Your task to perform on an android device: add a contact Image 0: 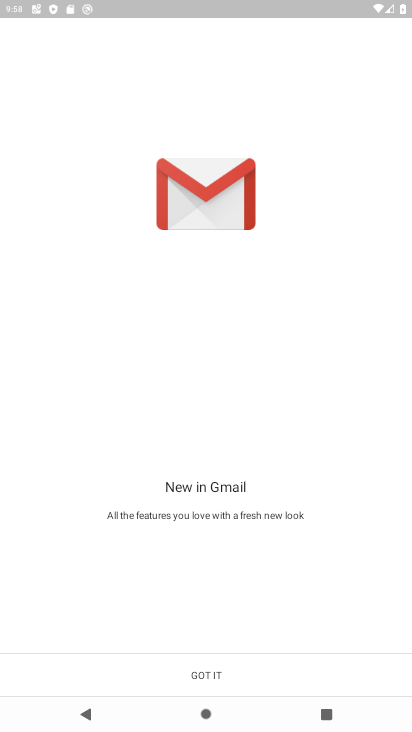
Step 0: press home button
Your task to perform on an android device: add a contact Image 1: 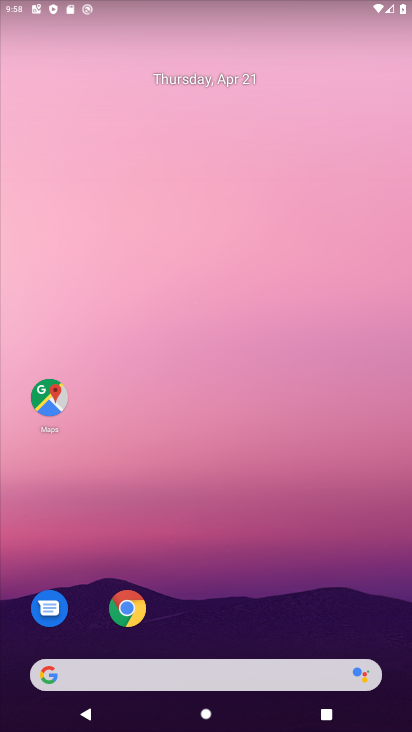
Step 1: drag from (180, 599) to (256, 132)
Your task to perform on an android device: add a contact Image 2: 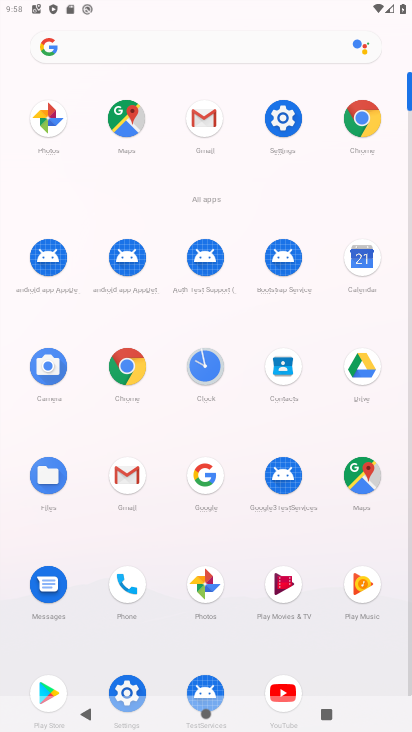
Step 2: click (290, 368)
Your task to perform on an android device: add a contact Image 3: 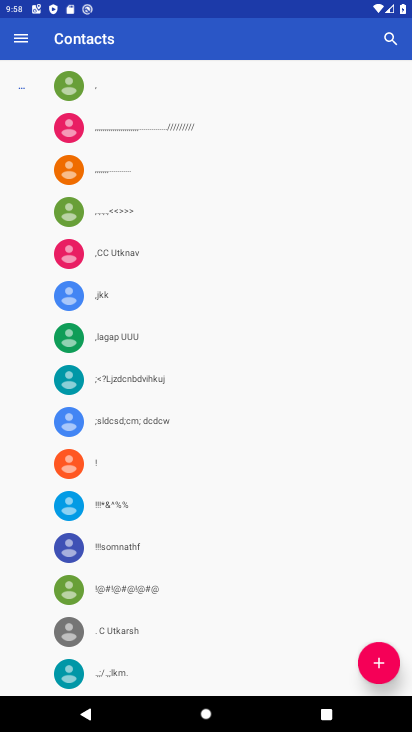
Step 3: click (391, 673)
Your task to perform on an android device: add a contact Image 4: 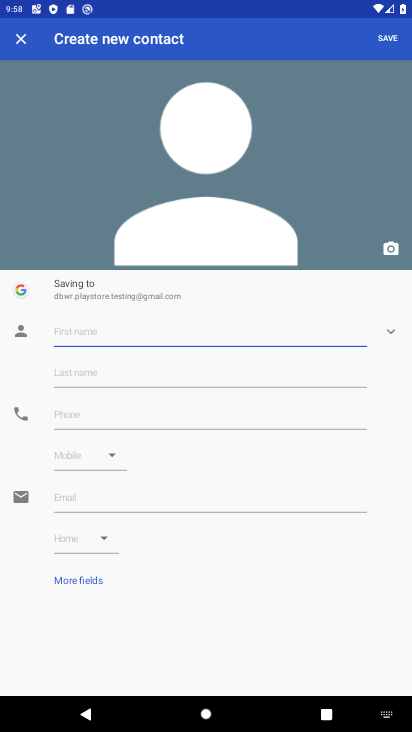
Step 4: type "Naradmuni"
Your task to perform on an android device: add a contact Image 5: 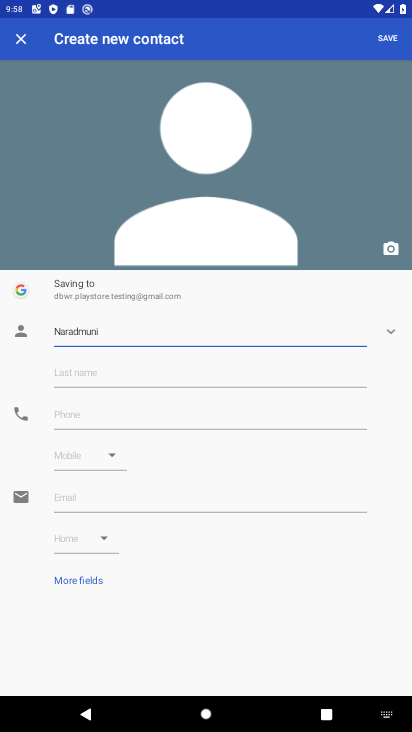
Step 5: click (158, 411)
Your task to perform on an android device: add a contact Image 6: 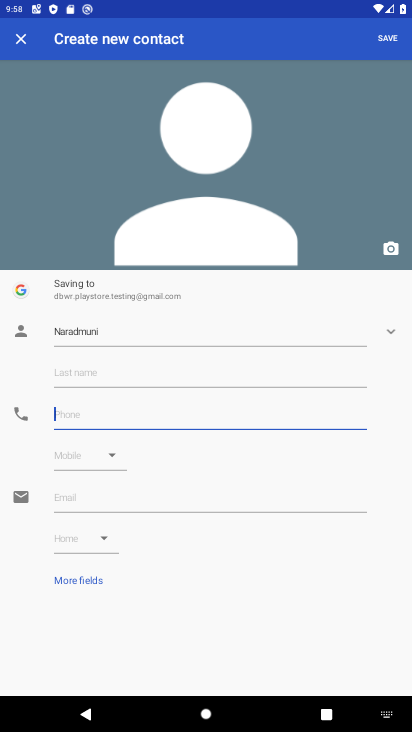
Step 6: type "2345465767"
Your task to perform on an android device: add a contact Image 7: 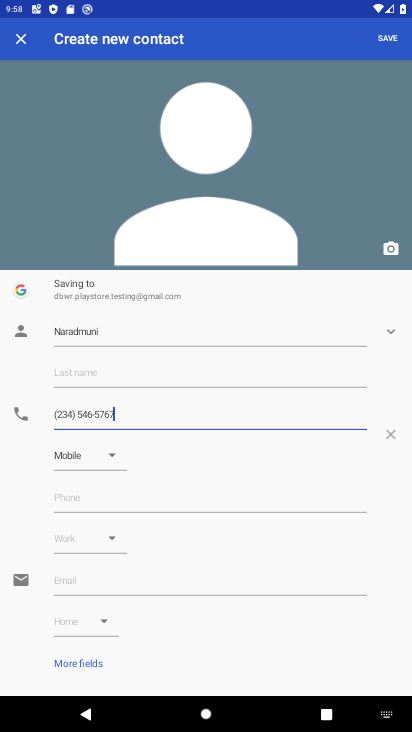
Step 7: click (381, 46)
Your task to perform on an android device: add a contact Image 8: 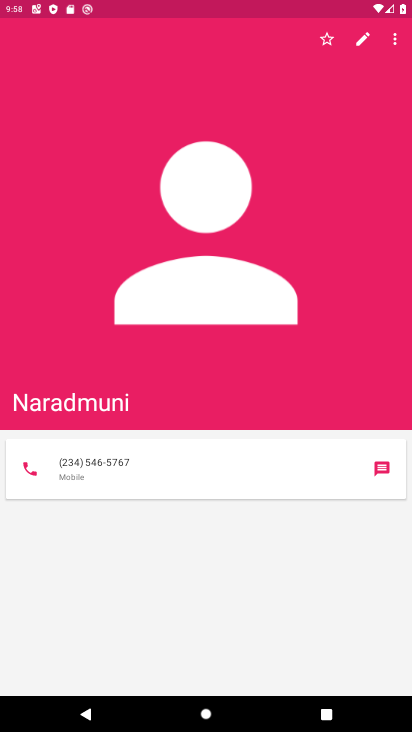
Step 8: task complete